Your task to perform on an android device: install app "TextNow: Call + Text Unlimited" Image 0: 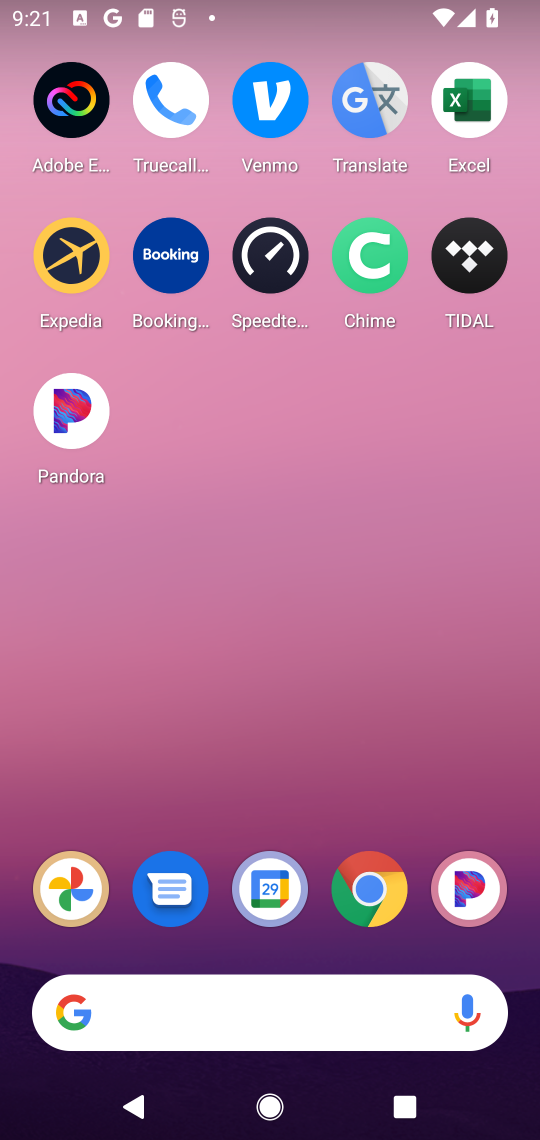
Step 0: press home button
Your task to perform on an android device: install app "TextNow: Call + Text Unlimited" Image 1: 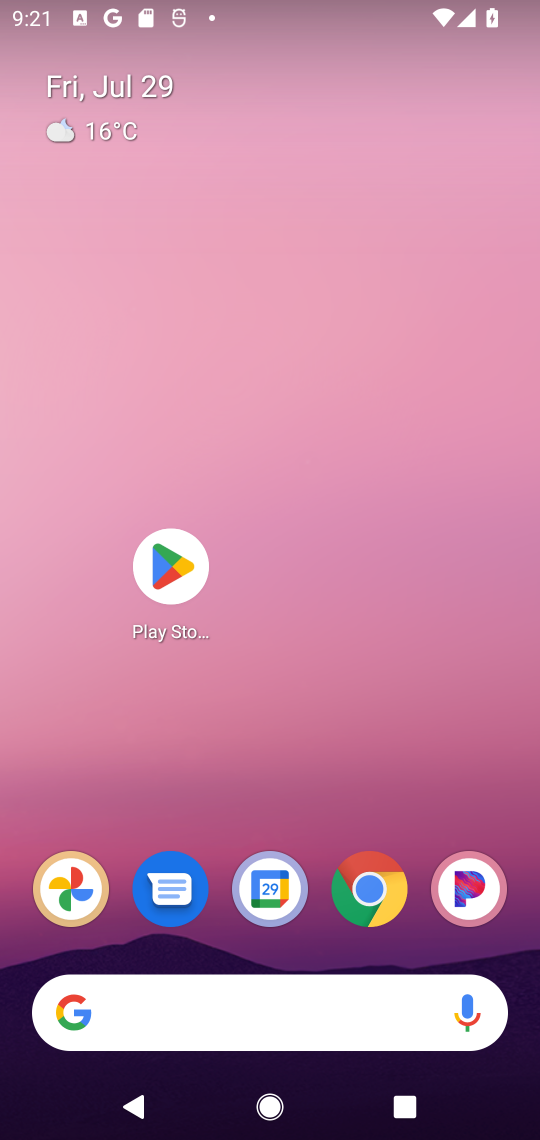
Step 1: click (155, 569)
Your task to perform on an android device: install app "TextNow: Call + Text Unlimited" Image 2: 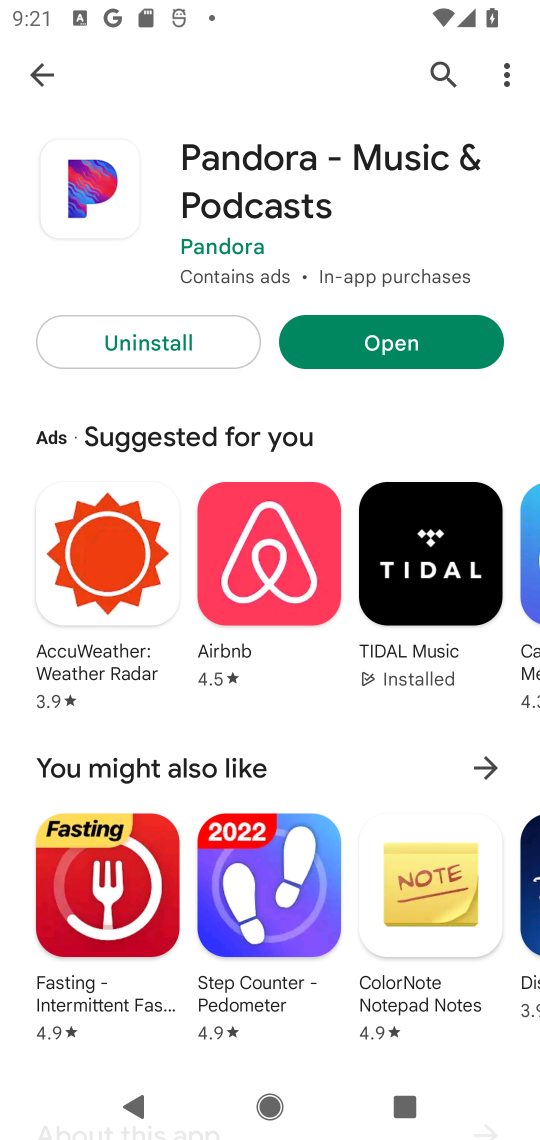
Step 2: click (438, 70)
Your task to perform on an android device: install app "TextNow: Call + Text Unlimited" Image 3: 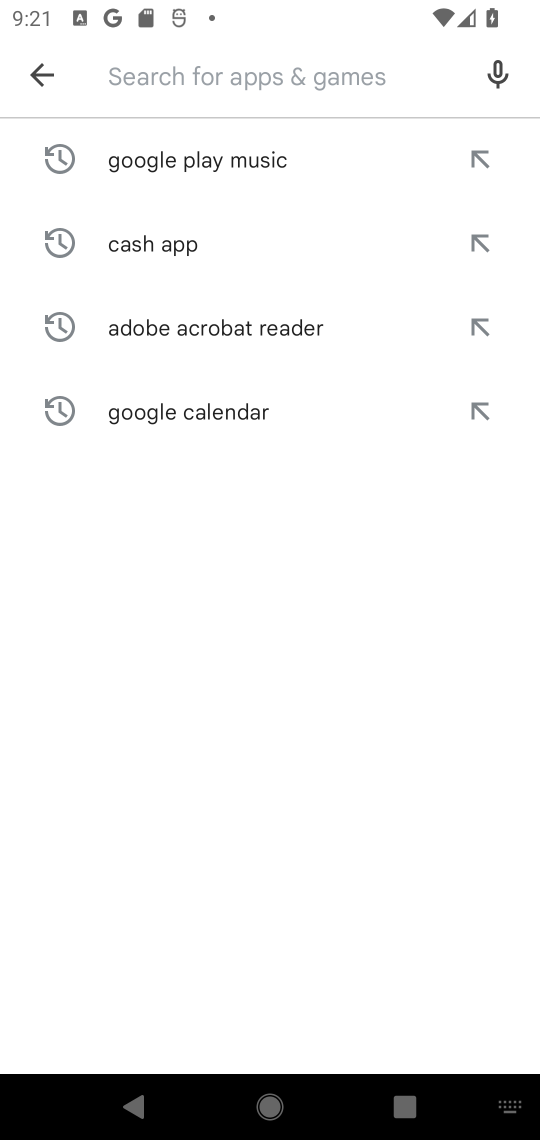
Step 3: type "TextNow: Call + Text Unlimited"
Your task to perform on an android device: install app "TextNow: Call + Text Unlimited" Image 4: 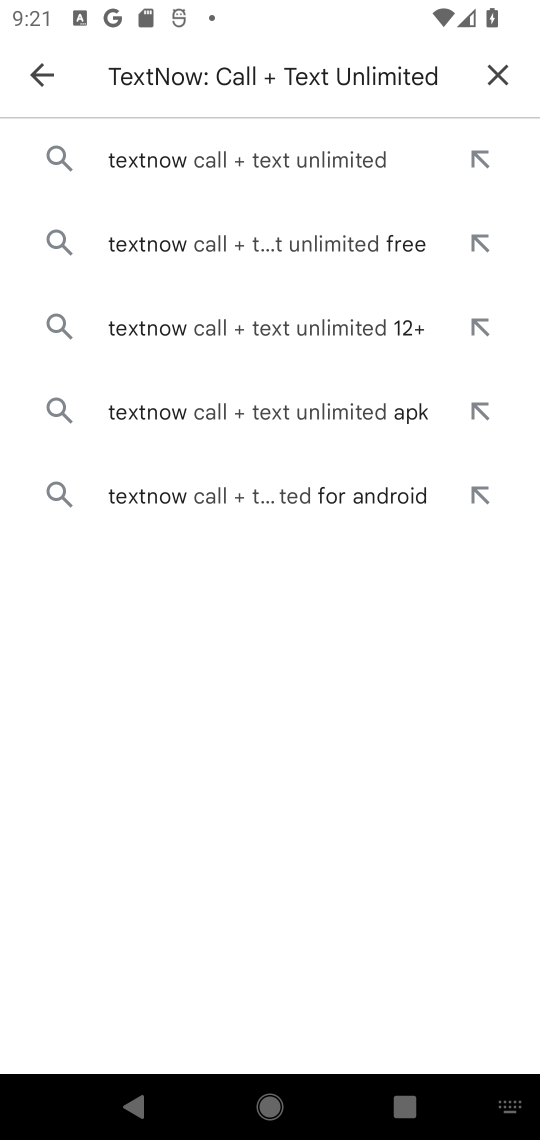
Step 4: click (245, 160)
Your task to perform on an android device: install app "TextNow: Call + Text Unlimited" Image 5: 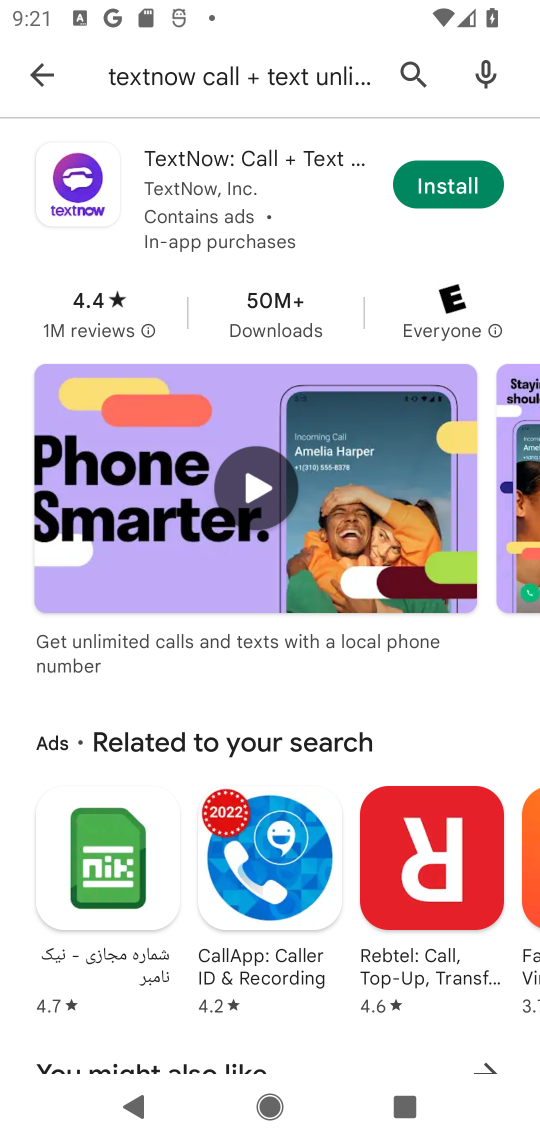
Step 5: click (462, 193)
Your task to perform on an android device: install app "TextNow: Call + Text Unlimited" Image 6: 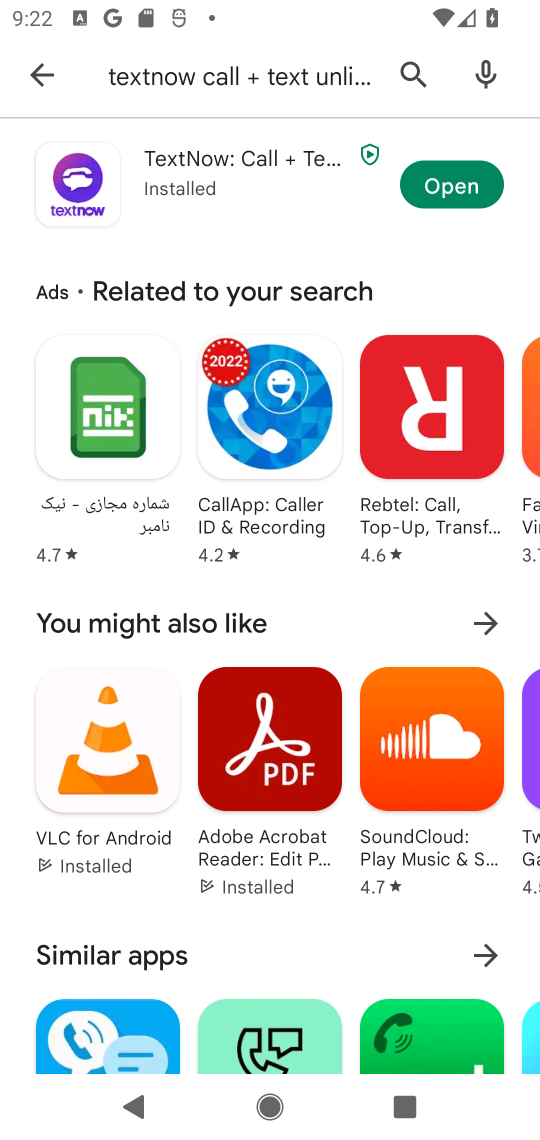
Step 6: task complete